Your task to perform on an android device: turn off javascript in the chrome app Image 0: 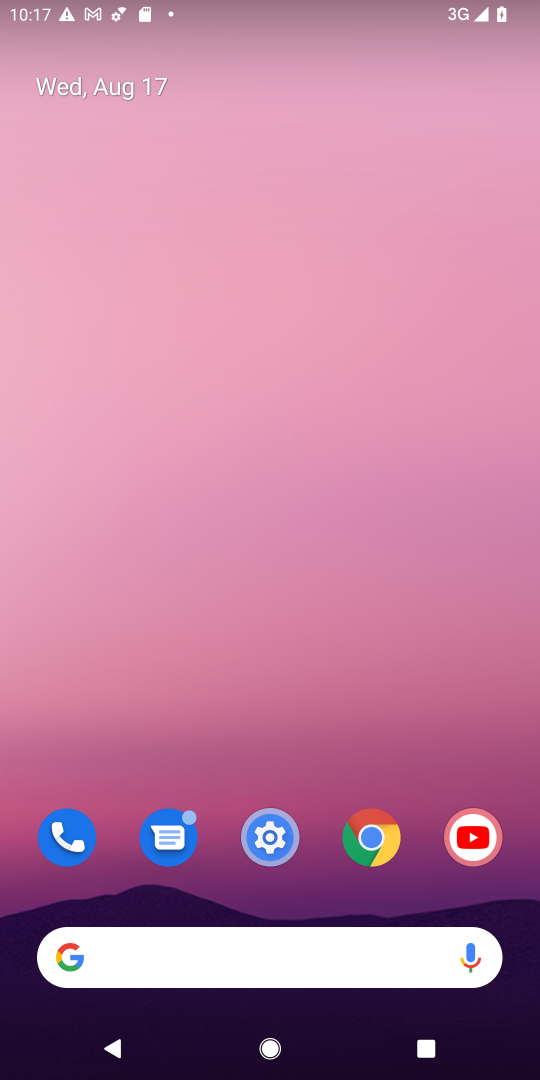
Step 0: click (373, 840)
Your task to perform on an android device: turn off javascript in the chrome app Image 1: 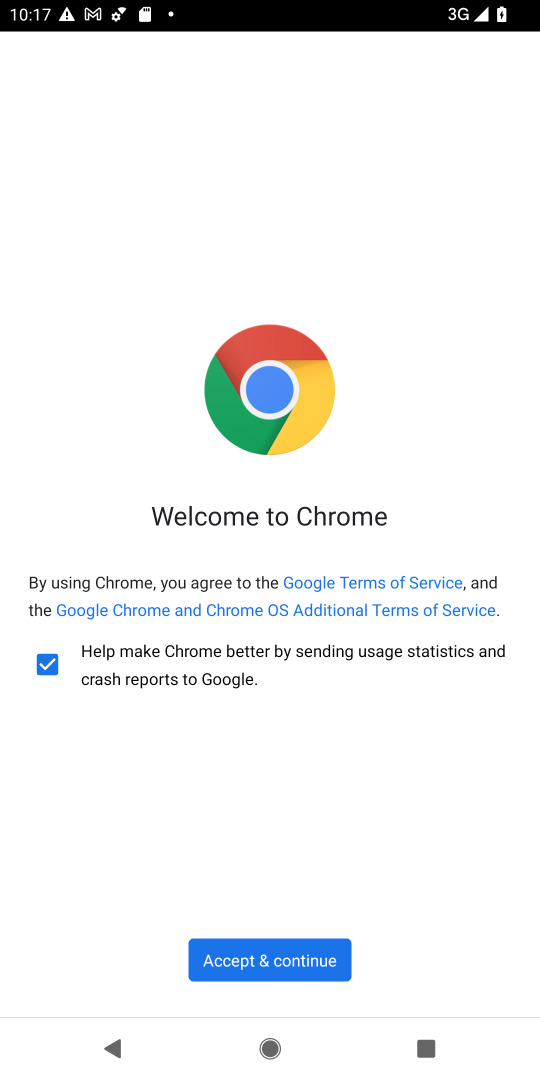
Step 1: click (277, 962)
Your task to perform on an android device: turn off javascript in the chrome app Image 2: 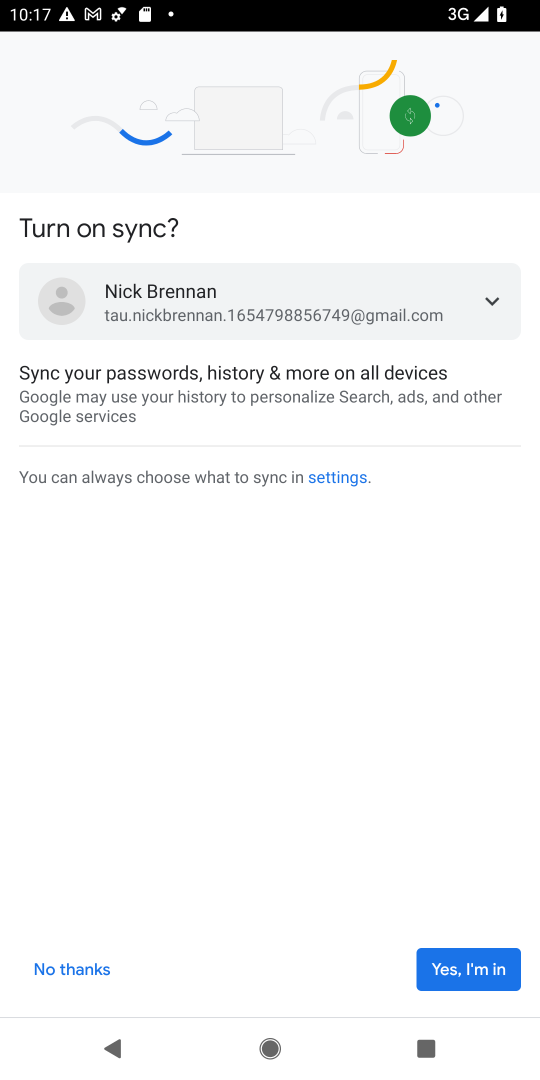
Step 2: click (473, 971)
Your task to perform on an android device: turn off javascript in the chrome app Image 3: 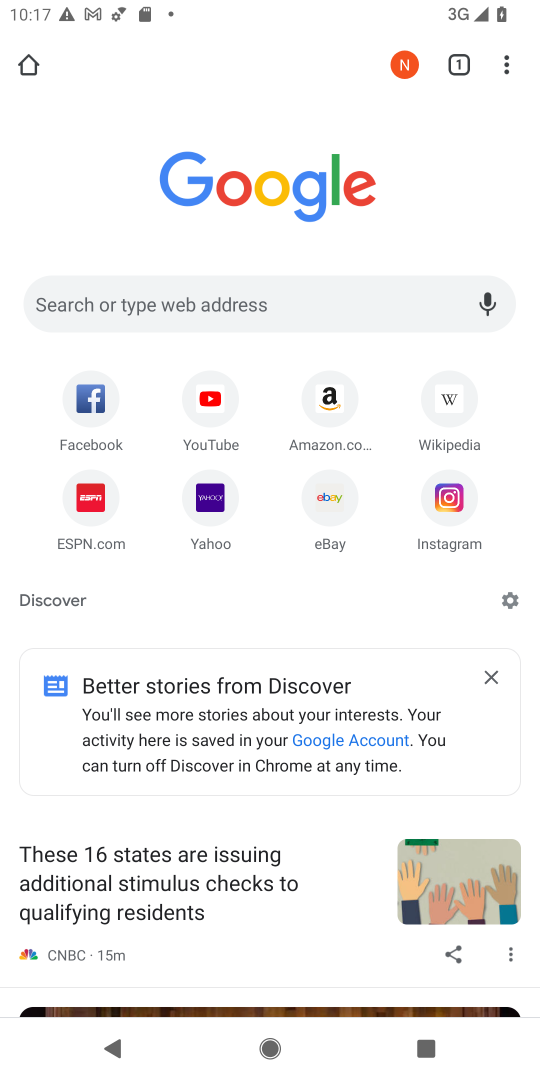
Step 3: click (526, 67)
Your task to perform on an android device: turn off javascript in the chrome app Image 4: 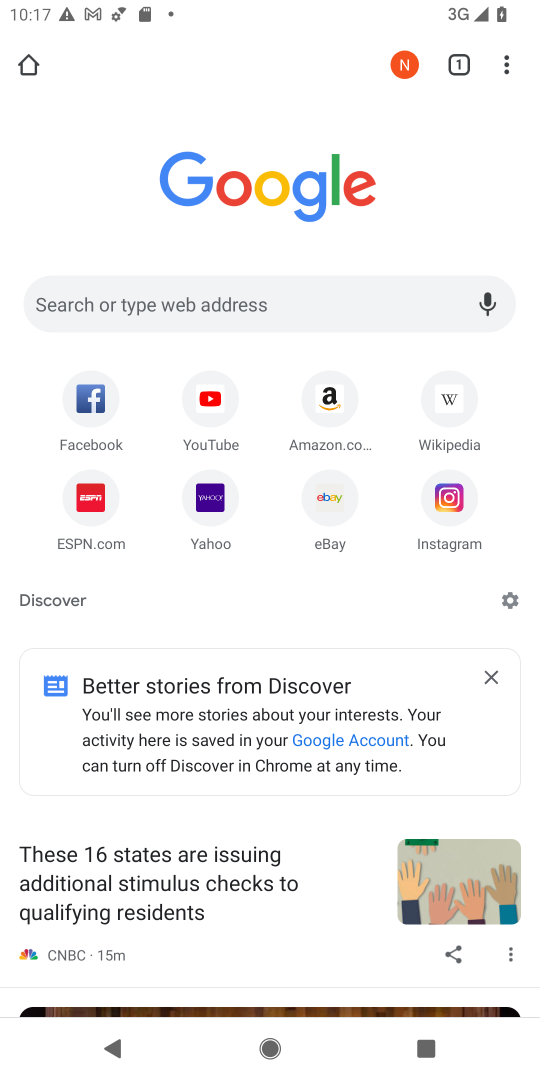
Step 4: drag from (508, 70) to (364, 550)
Your task to perform on an android device: turn off javascript in the chrome app Image 5: 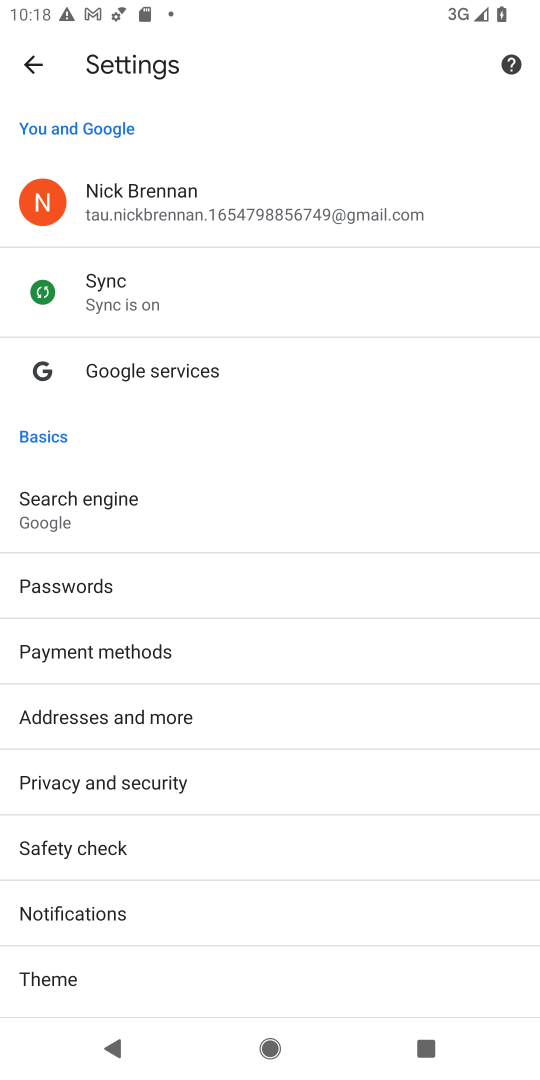
Step 5: drag from (128, 678) to (240, 540)
Your task to perform on an android device: turn off javascript in the chrome app Image 6: 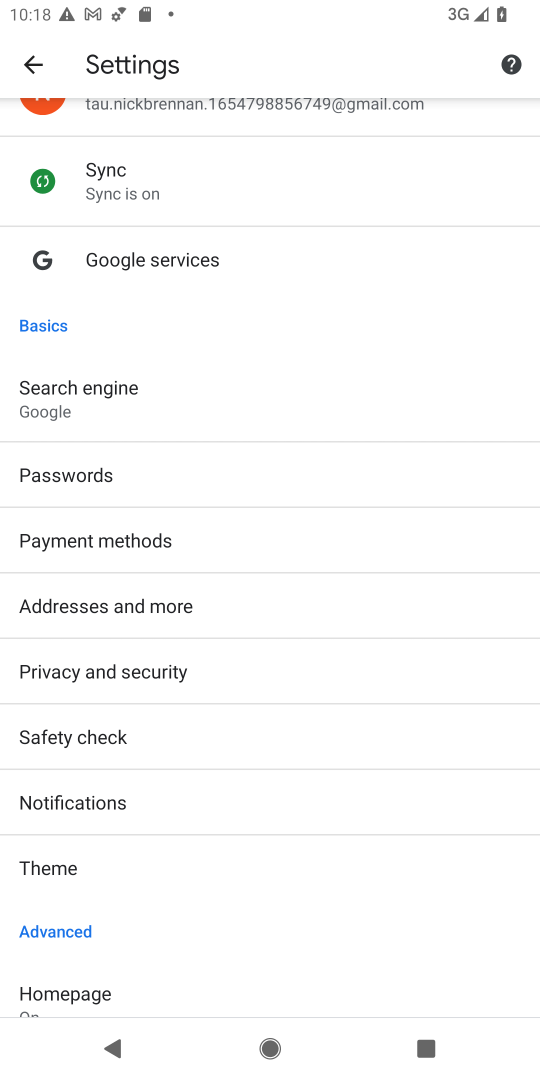
Step 6: drag from (121, 873) to (152, 708)
Your task to perform on an android device: turn off javascript in the chrome app Image 7: 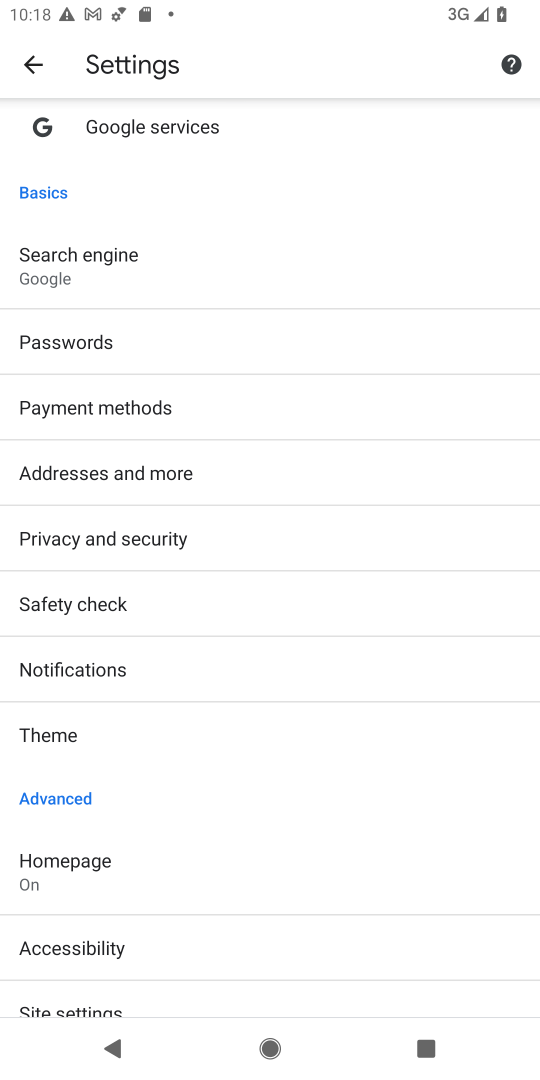
Step 7: drag from (138, 842) to (219, 715)
Your task to perform on an android device: turn off javascript in the chrome app Image 8: 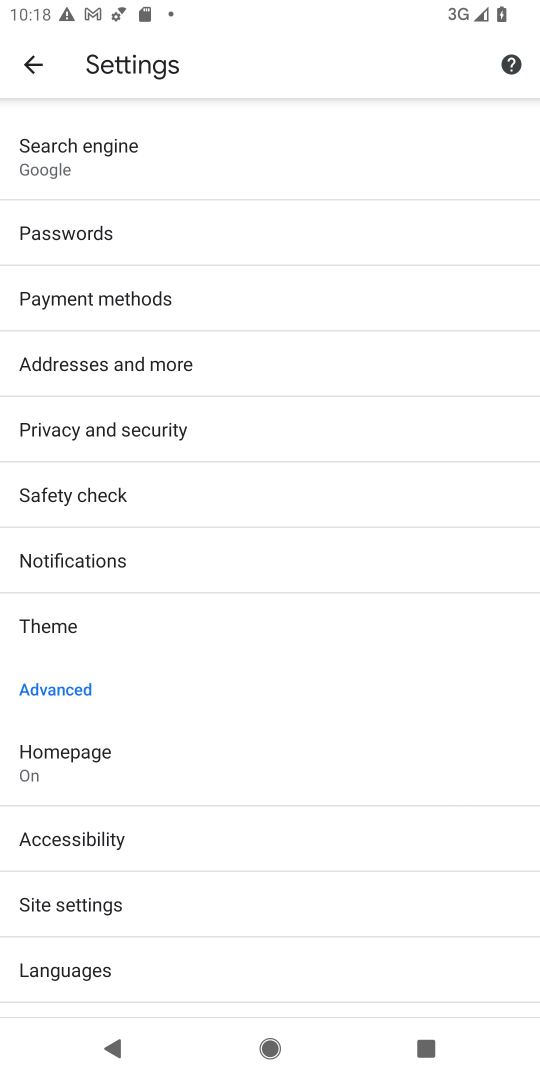
Step 8: drag from (229, 854) to (318, 712)
Your task to perform on an android device: turn off javascript in the chrome app Image 9: 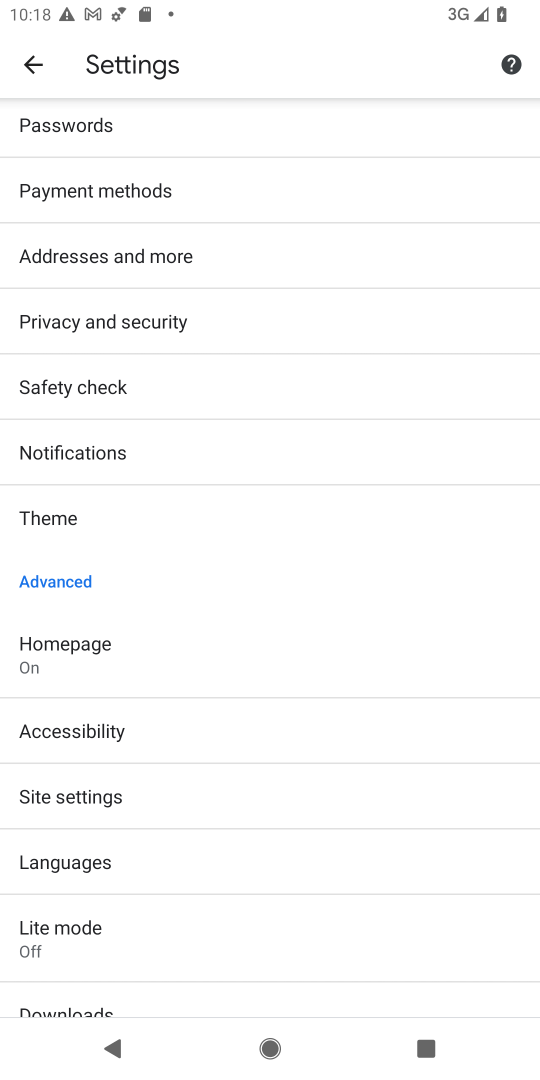
Step 9: drag from (165, 901) to (320, 729)
Your task to perform on an android device: turn off javascript in the chrome app Image 10: 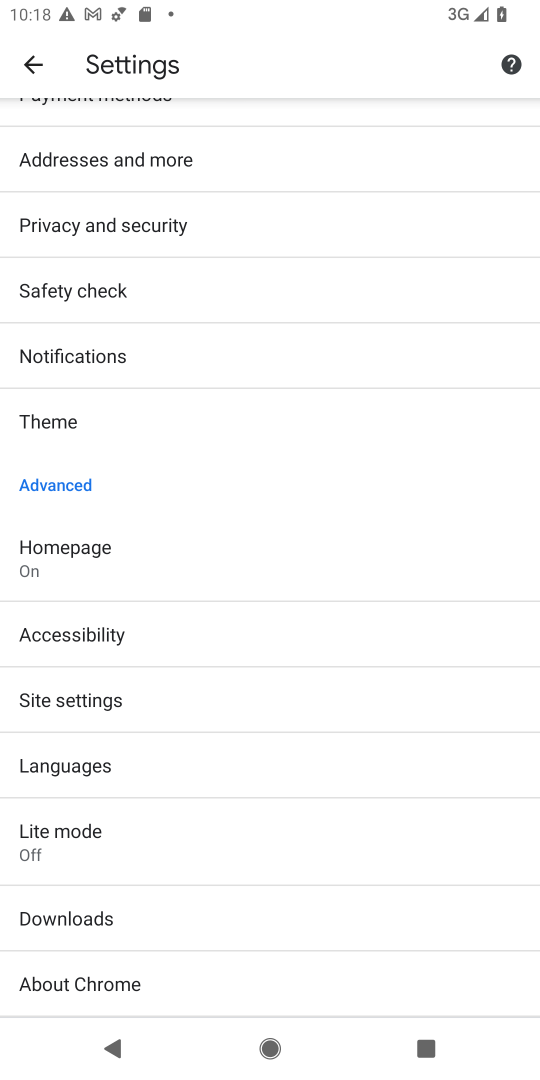
Step 10: click (107, 712)
Your task to perform on an android device: turn off javascript in the chrome app Image 11: 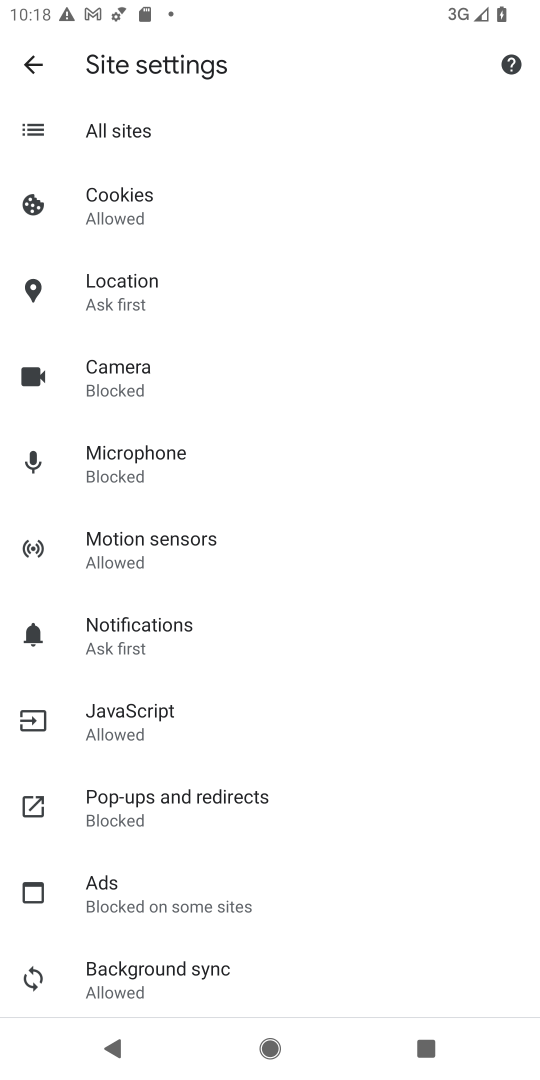
Step 11: click (163, 733)
Your task to perform on an android device: turn off javascript in the chrome app Image 12: 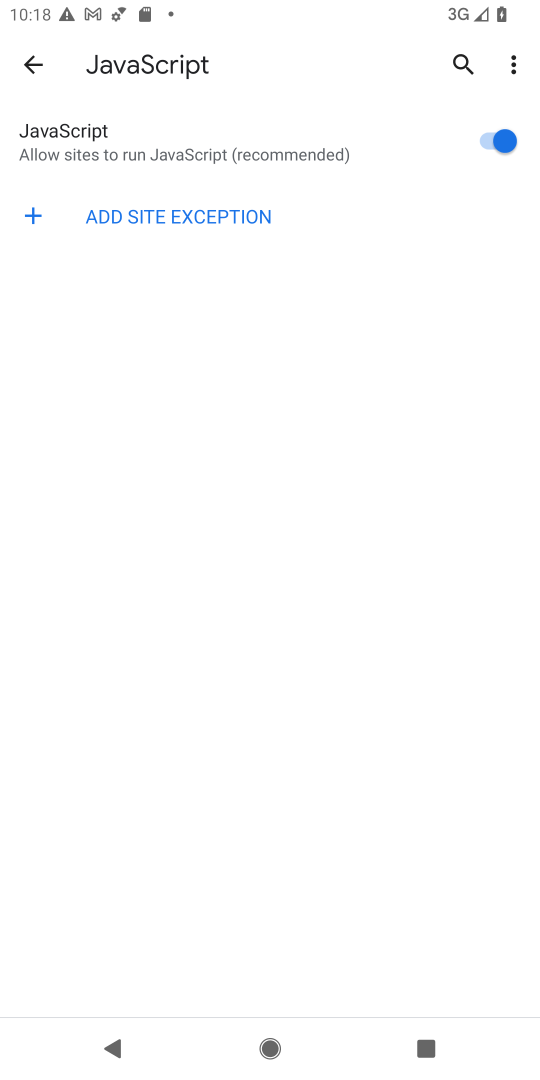
Step 12: click (490, 145)
Your task to perform on an android device: turn off javascript in the chrome app Image 13: 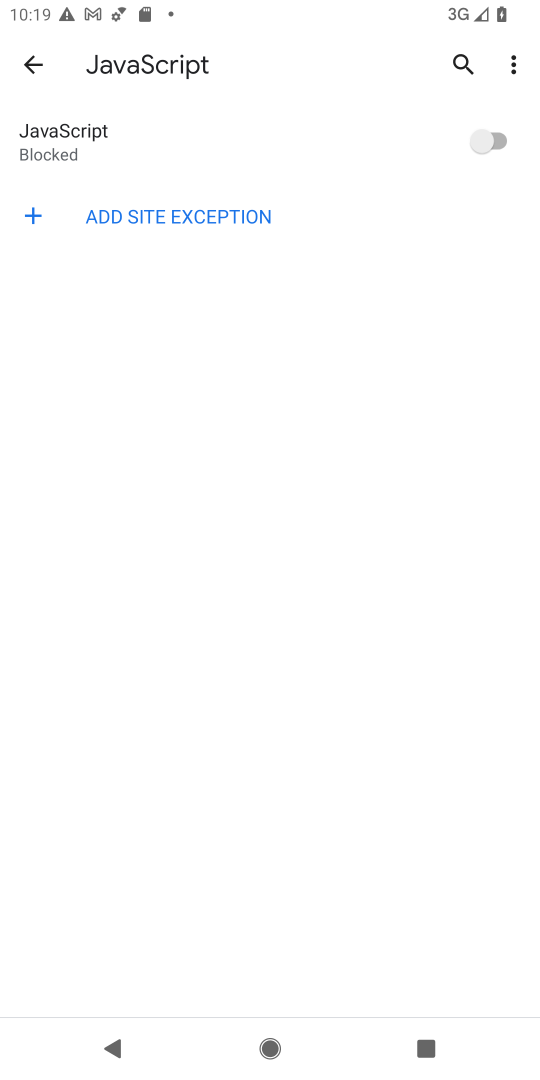
Step 13: task complete